Your task to perform on an android device: open app "File Manager" Image 0: 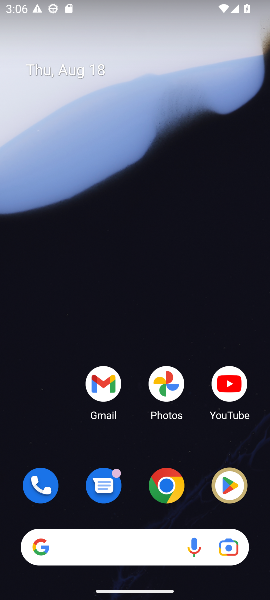
Step 0: click (222, 479)
Your task to perform on an android device: open app "File Manager" Image 1: 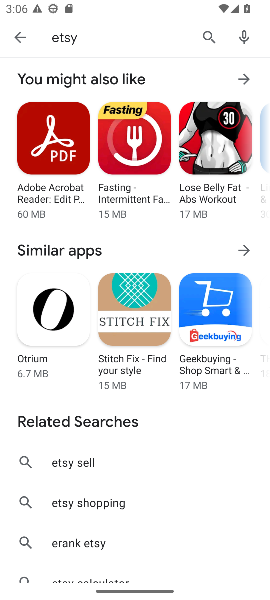
Step 1: click (212, 36)
Your task to perform on an android device: open app "File Manager" Image 2: 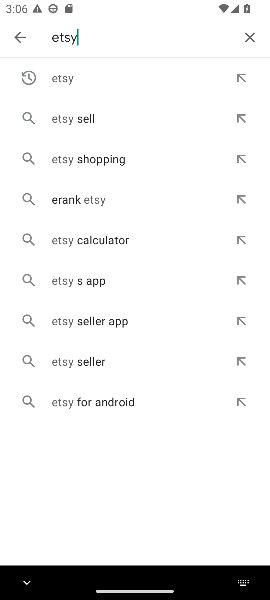
Step 2: click (243, 27)
Your task to perform on an android device: open app "File Manager" Image 3: 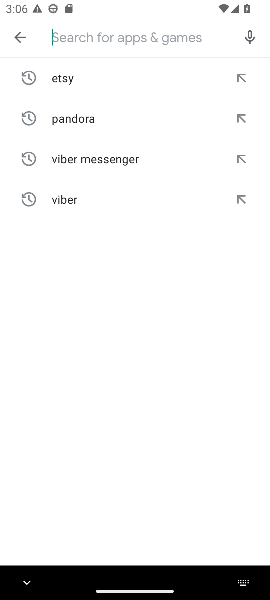
Step 3: click (129, 34)
Your task to perform on an android device: open app "File Manager" Image 4: 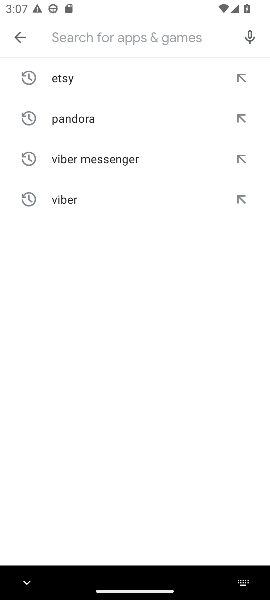
Step 4: type "file manager"
Your task to perform on an android device: open app "File Manager" Image 5: 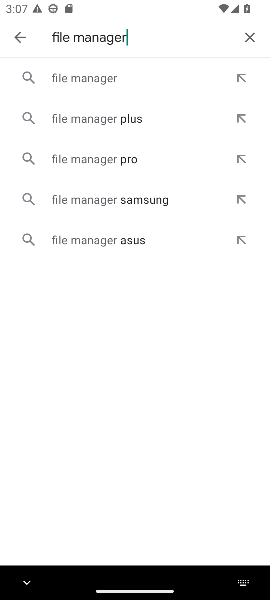
Step 5: click (96, 77)
Your task to perform on an android device: open app "File Manager" Image 6: 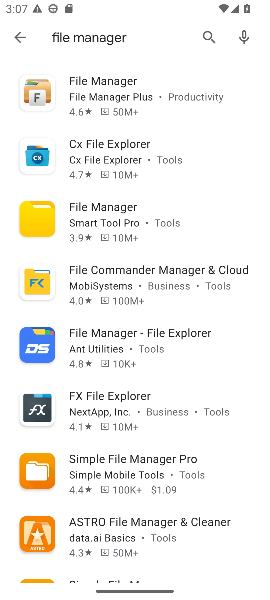
Step 6: click (107, 88)
Your task to perform on an android device: open app "File Manager" Image 7: 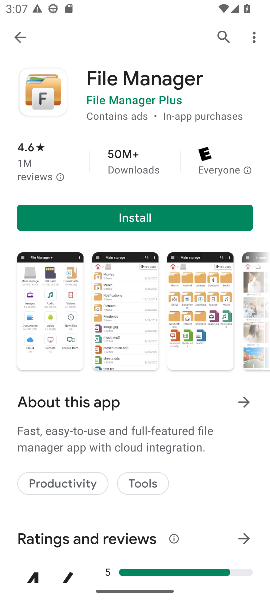
Step 7: task complete